Your task to perform on an android device: Open Google Maps and go to "Timeline" Image 0: 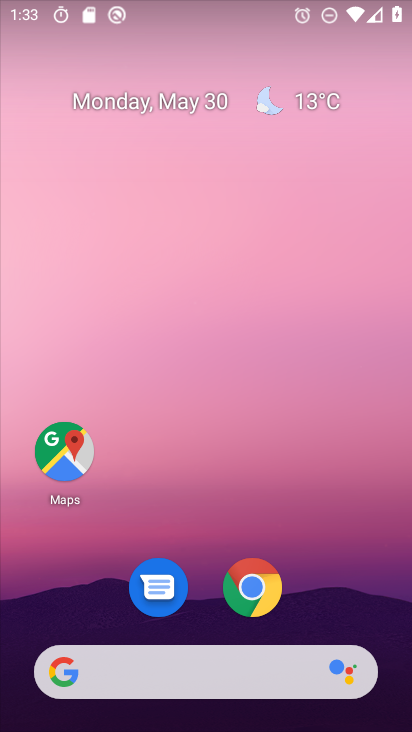
Step 0: drag from (337, 599) to (190, 1)
Your task to perform on an android device: Open Google Maps and go to "Timeline" Image 1: 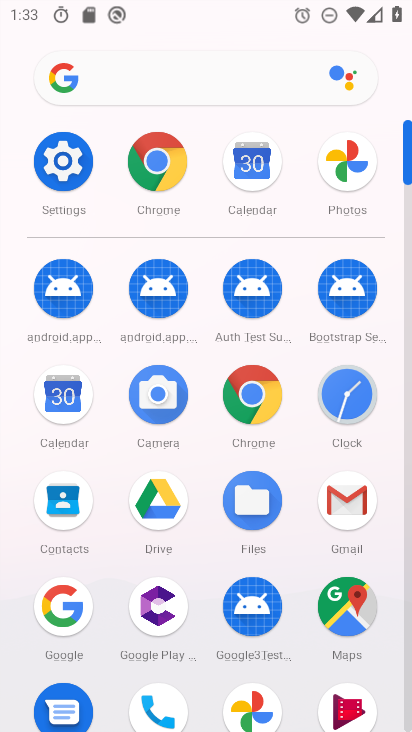
Step 1: click (349, 603)
Your task to perform on an android device: Open Google Maps and go to "Timeline" Image 2: 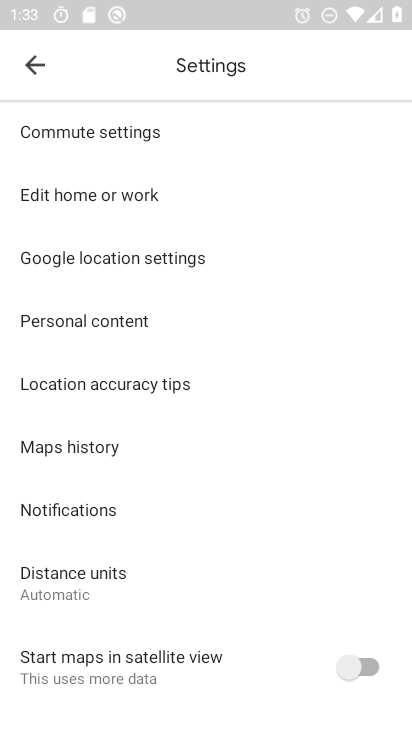
Step 2: click (34, 58)
Your task to perform on an android device: Open Google Maps and go to "Timeline" Image 3: 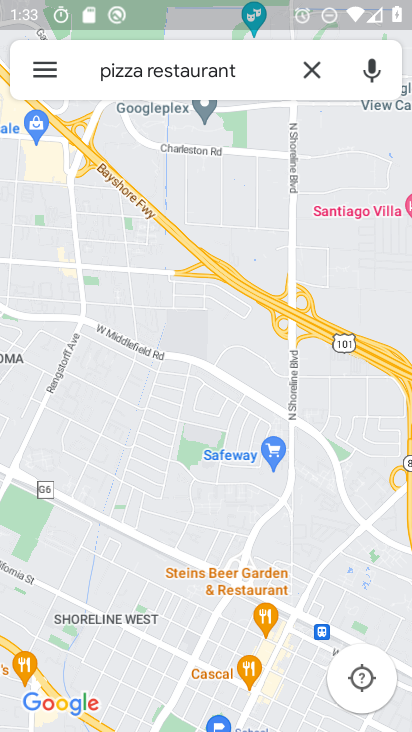
Step 3: click (34, 58)
Your task to perform on an android device: Open Google Maps and go to "Timeline" Image 4: 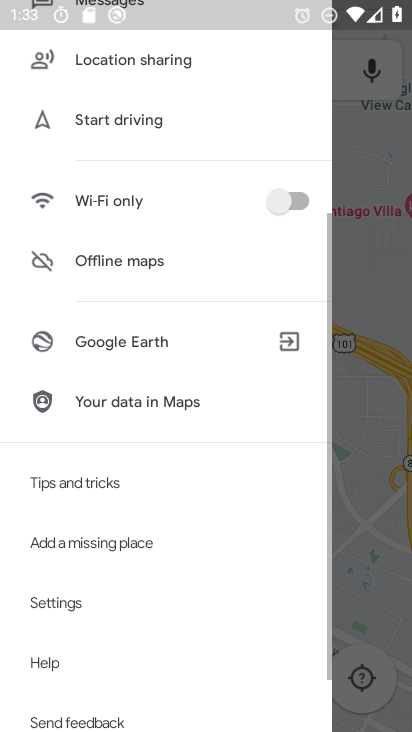
Step 4: drag from (114, 102) to (148, 707)
Your task to perform on an android device: Open Google Maps and go to "Timeline" Image 5: 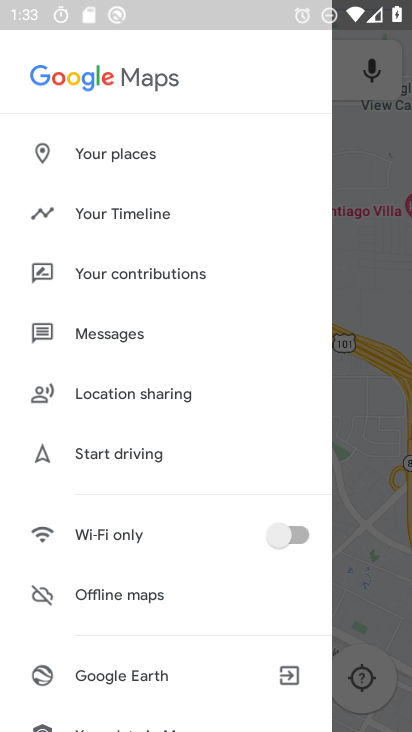
Step 5: drag from (113, 251) to (110, 700)
Your task to perform on an android device: Open Google Maps and go to "Timeline" Image 6: 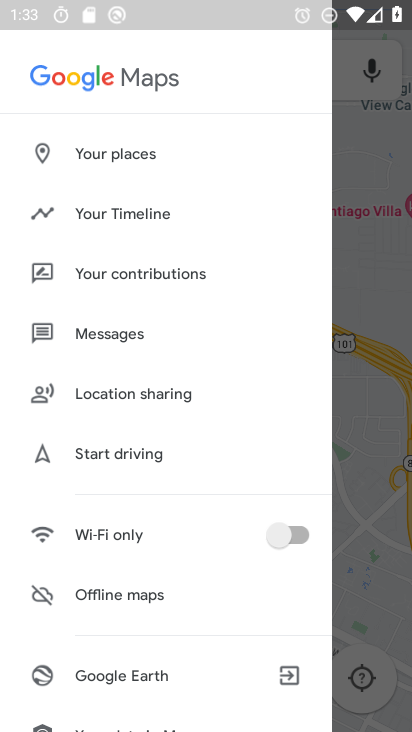
Step 6: click (123, 209)
Your task to perform on an android device: Open Google Maps and go to "Timeline" Image 7: 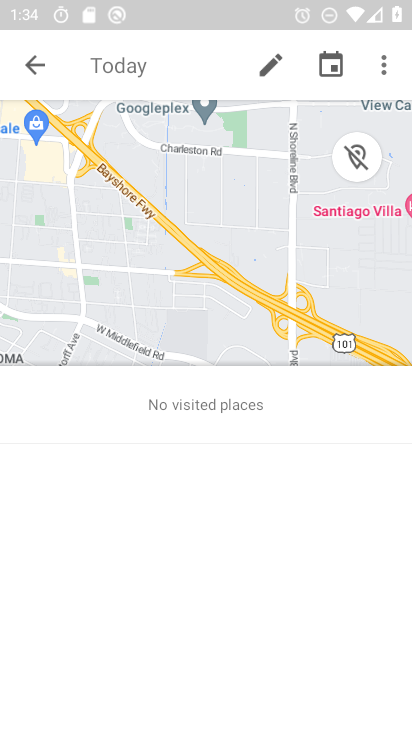
Step 7: task complete